Your task to perform on an android device: show emergency info Image 0: 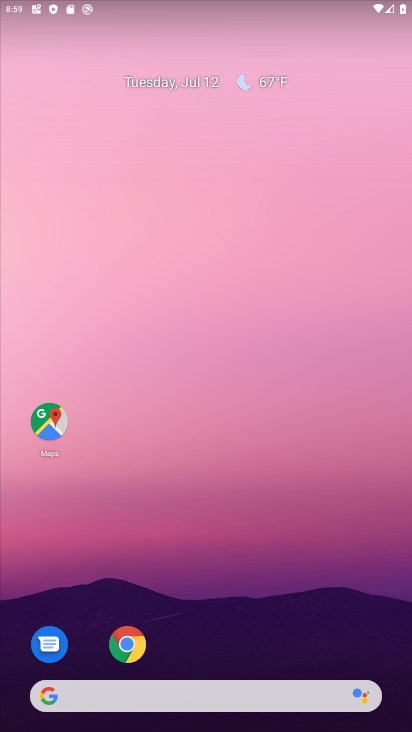
Step 0: drag from (175, 540) to (215, 214)
Your task to perform on an android device: show emergency info Image 1: 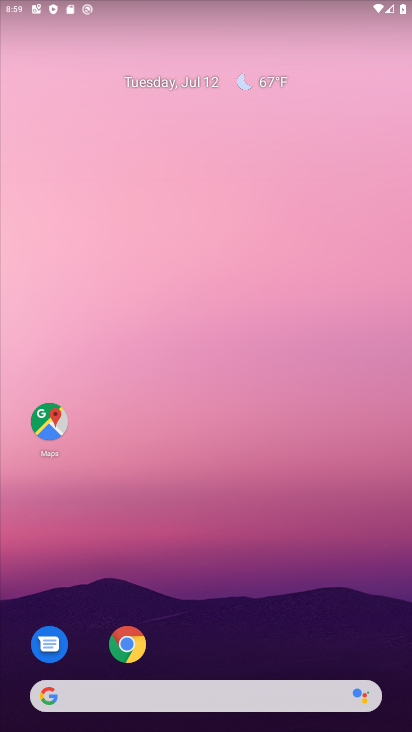
Step 1: drag from (182, 598) to (222, 313)
Your task to perform on an android device: show emergency info Image 2: 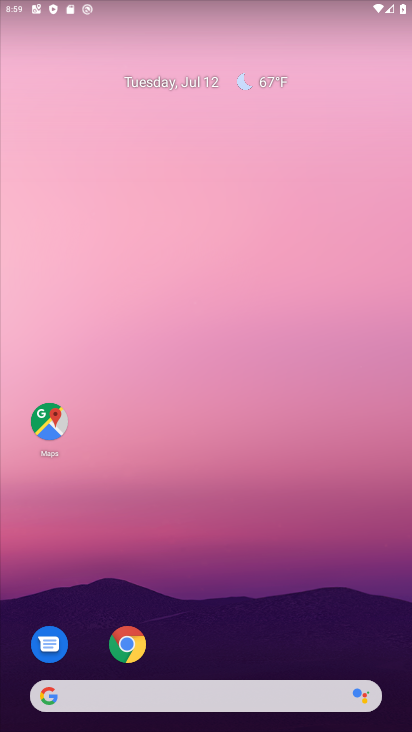
Step 2: drag from (190, 676) to (18, 39)
Your task to perform on an android device: show emergency info Image 3: 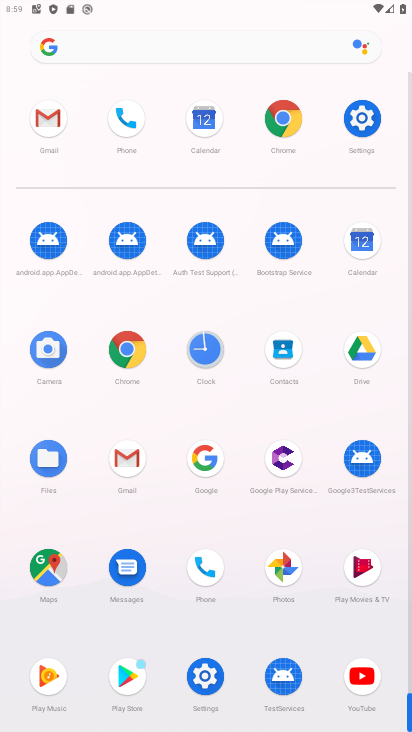
Step 3: click (202, 665)
Your task to perform on an android device: show emergency info Image 4: 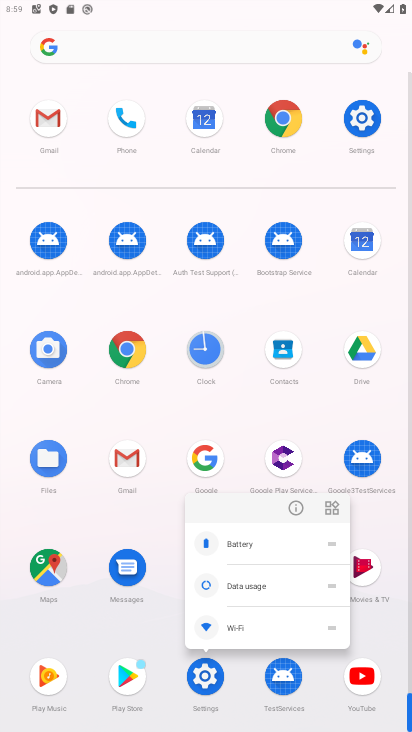
Step 4: click (291, 502)
Your task to perform on an android device: show emergency info Image 5: 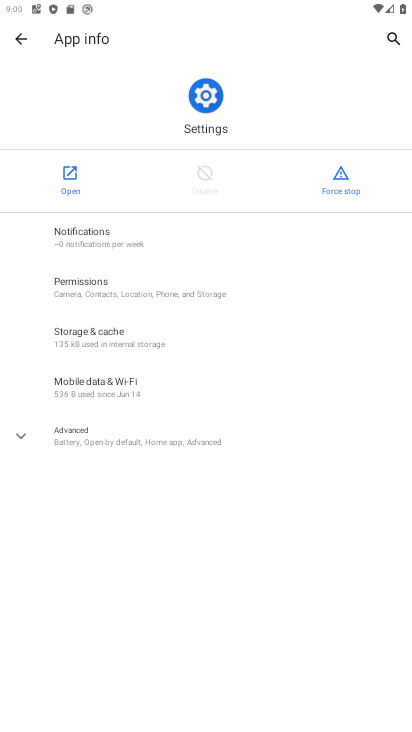
Step 5: click (66, 199)
Your task to perform on an android device: show emergency info Image 6: 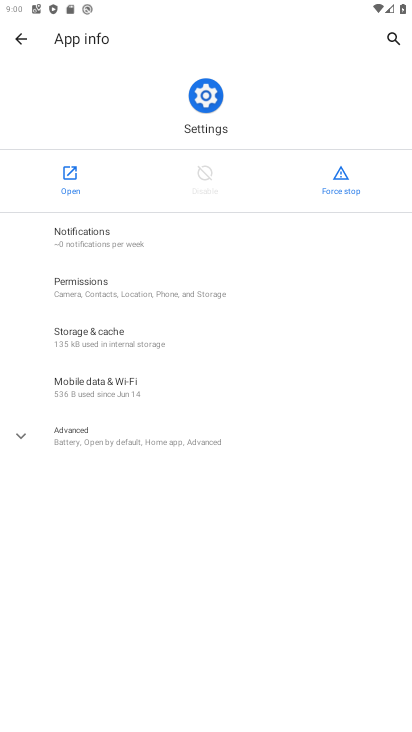
Step 6: click (65, 196)
Your task to perform on an android device: show emergency info Image 7: 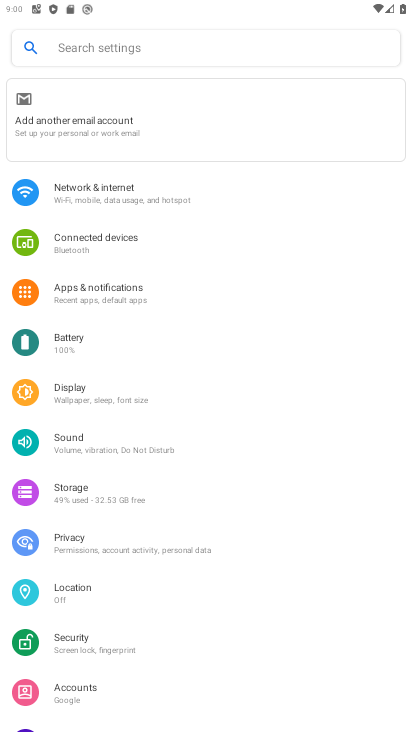
Step 7: drag from (169, 672) to (252, 52)
Your task to perform on an android device: show emergency info Image 8: 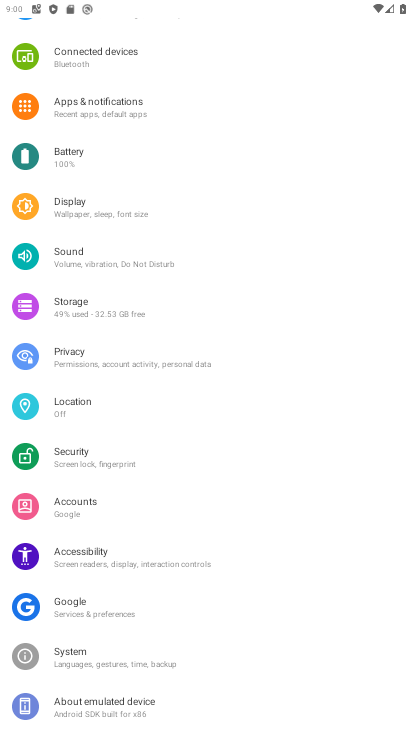
Step 8: drag from (156, 439) to (186, 1)
Your task to perform on an android device: show emergency info Image 9: 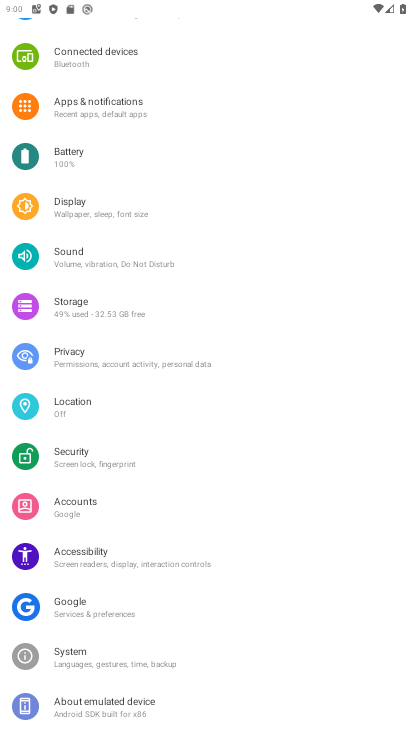
Step 9: click (124, 704)
Your task to perform on an android device: show emergency info Image 10: 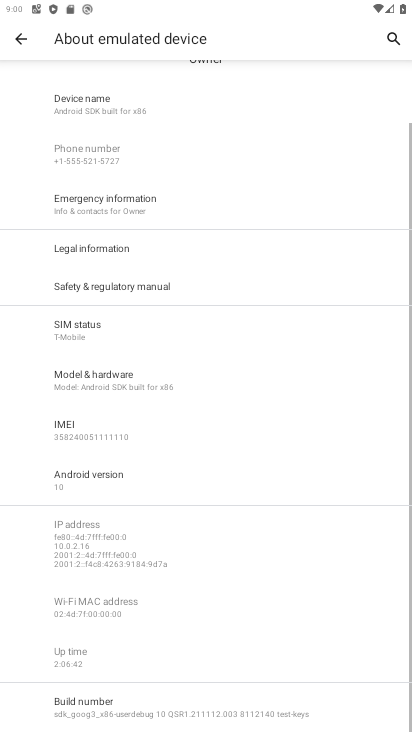
Step 10: click (210, 208)
Your task to perform on an android device: show emergency info Image 11: 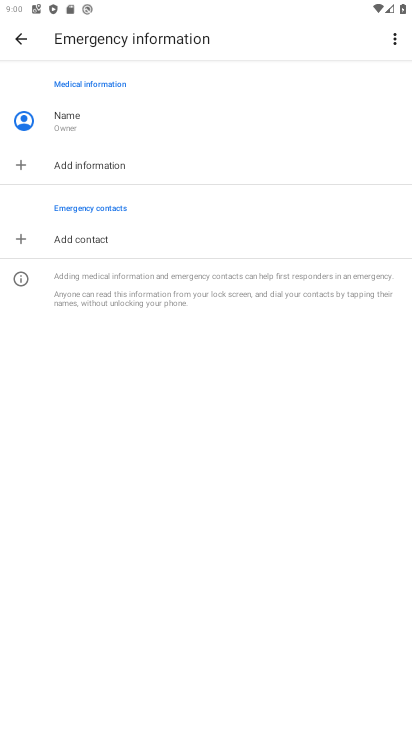
Step 11: task complete